Your task to perform on an android device: see sites visited before in the chrome app Image 0: 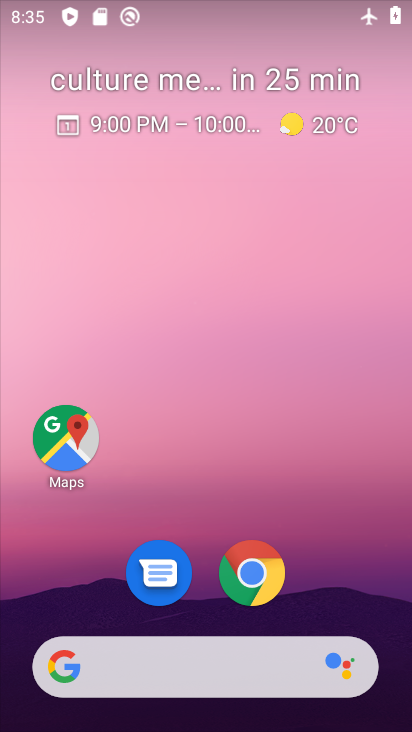
Step 0: click (244, 589)
Your task to perform on an android device: see sites visited before in the chrome app Image 1: 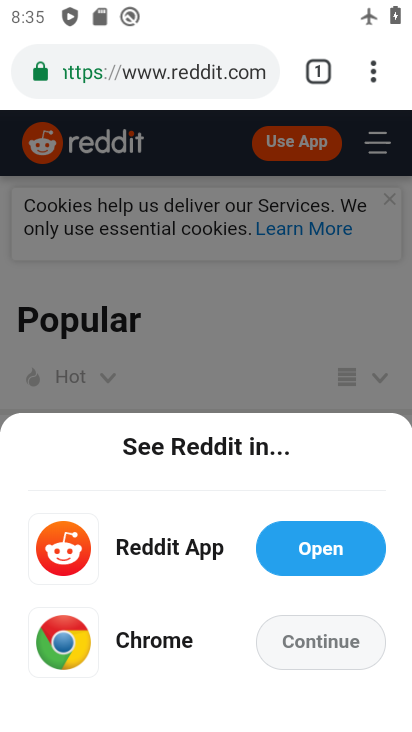
Step 1: task complete